Your task to perform on an android device: Go to sound settings Image 0: 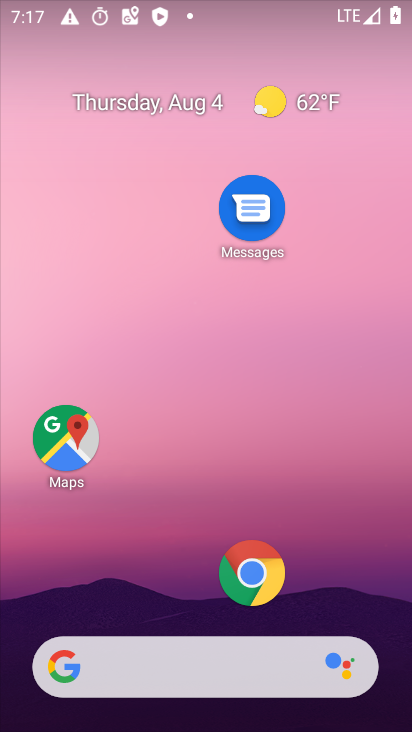
Step 0: press home button
Your task to perform on an android device: Go to sound settings Image 1: 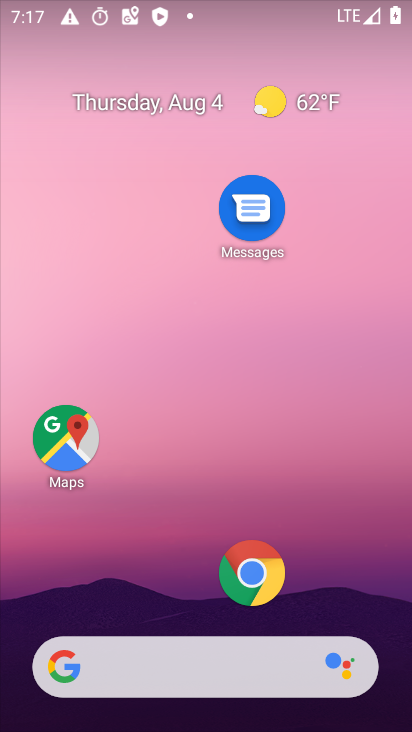
Step 1: drag from (186, 617) to (203, 178)
Your task to perform on an android device: Go to sound settings Image 2: 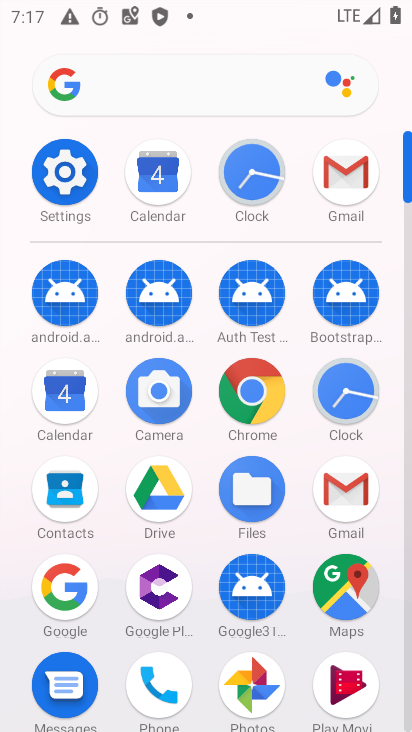
Step 2: click (58, 172)
Your task to perform on an android device: Go to sound settings Image 3: 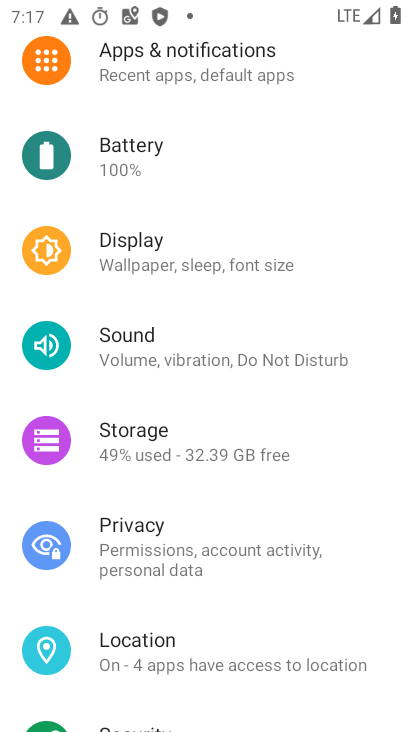
Step 3: click (162, 347)
Your task to perform on an android device: Go to sound settings Image 4: 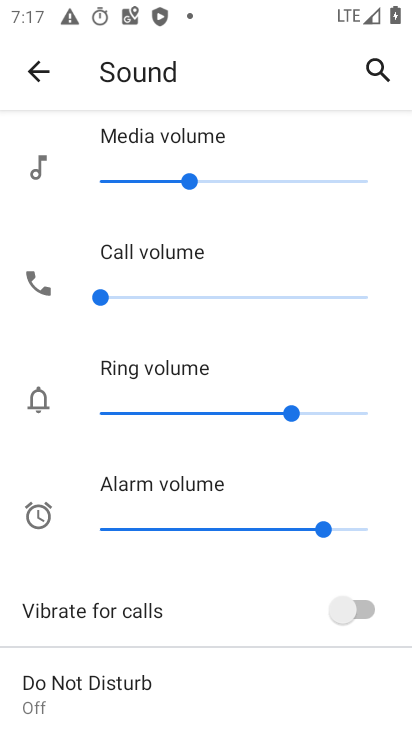
Step 4: task complete